Your task to perform on an android device: add a contact in the contacts app Image 0: 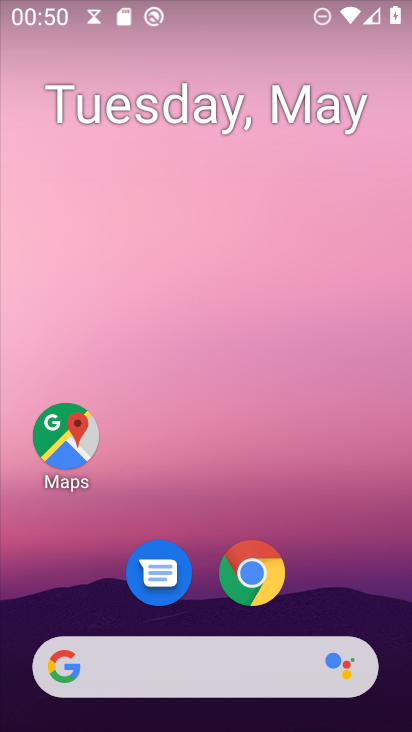
Step 0: drag from (349, 593) to (279, 139)
Your task to perform on an android device: add a contact in the contacts app Image 1: 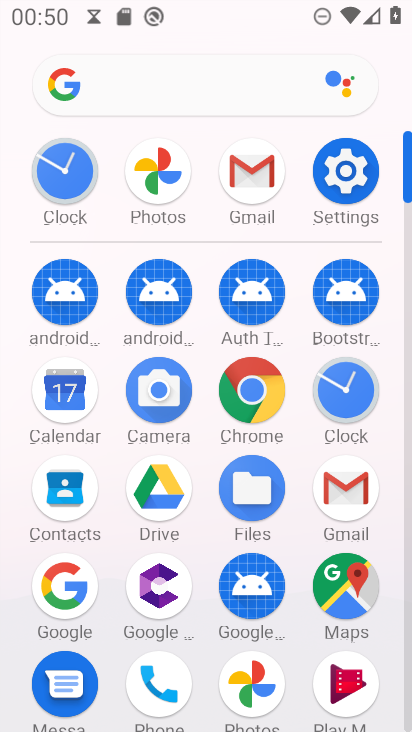
Step 1: click (56, 485)
Your task to perform on an android device: add a contact in the contacts app Image 2: 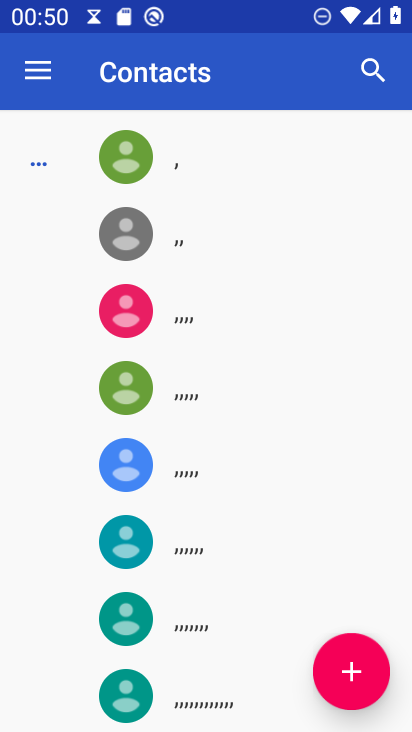
Step 2: click (351, 670)
Your task to perform on an android device: add a contact in the contacts app Image 3: 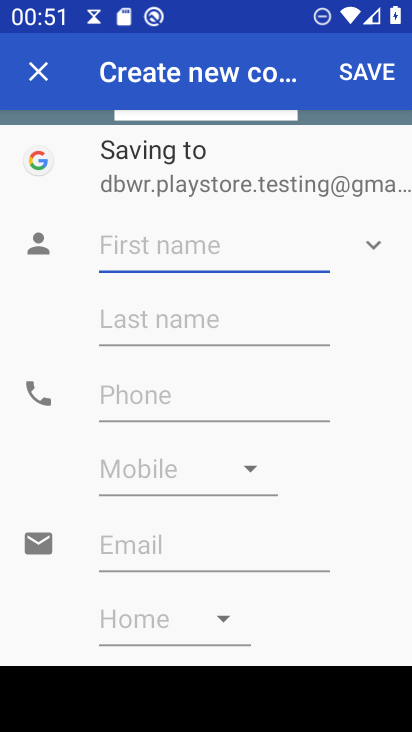
Step 3: type "fgsdfgs"
Your task to perform on an android device: add a contact in the contacts app Image 4: 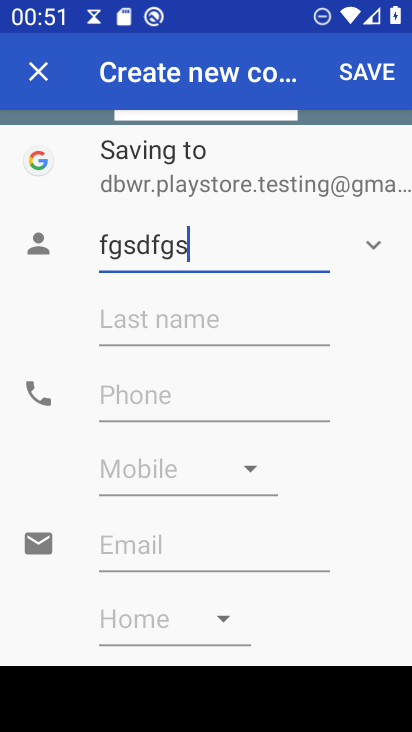
Step 4: type ""
Your task to perform on an android device: add a contact in the contacts app Image 5: 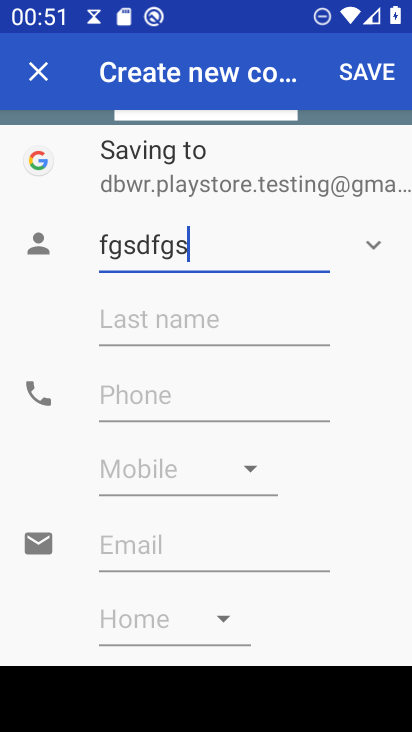
Step 5: click (250, 321)
Your task to perform on an android device: add a contact in the contacts app Image 6: 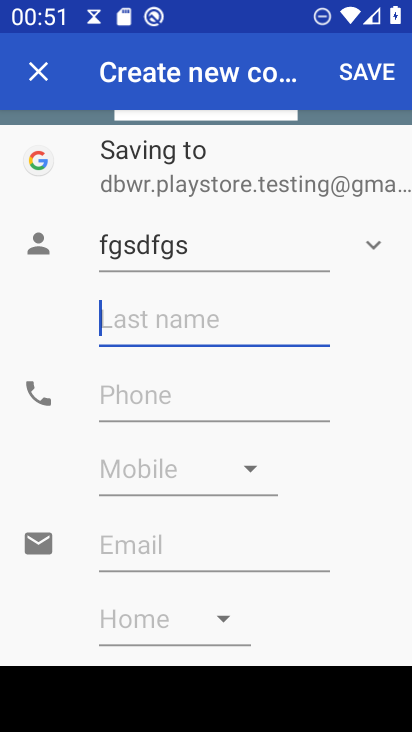
Step 6: type "fgdsg"
Your task to perform on an android device: add a contact in the contacts app Image 7: 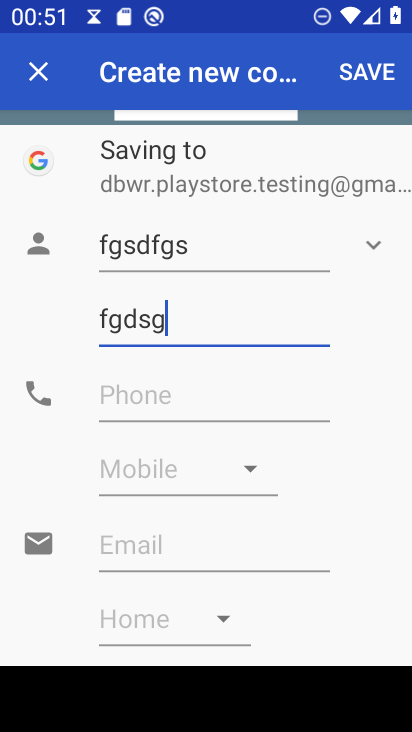
Step 7: type ""
Your task to perform on an android device: add a contact in the contacts app Image 8: 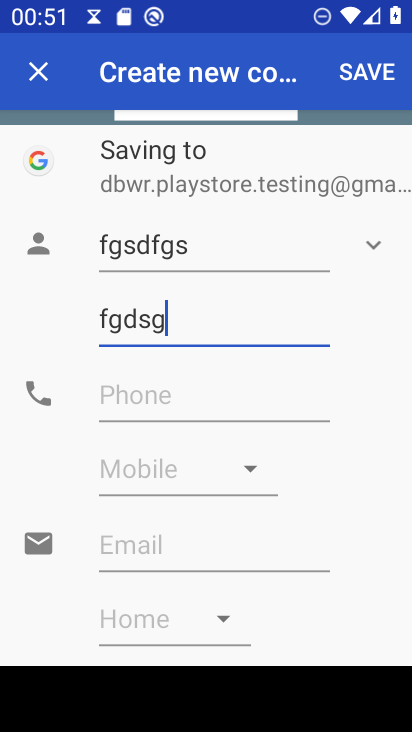
Step 8: click (236, 400)
Your task to perform on an android device: add a contact in the contacts app Image 9: 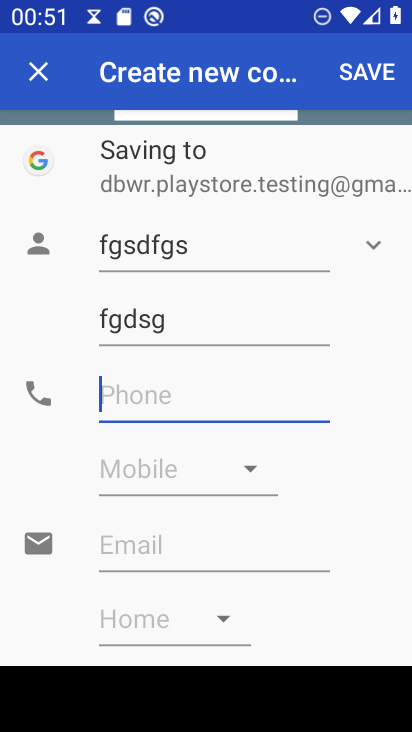
Step 9: type "53543452345"
Your task to perform on an android device: add a contact in the contacts app Image 10: 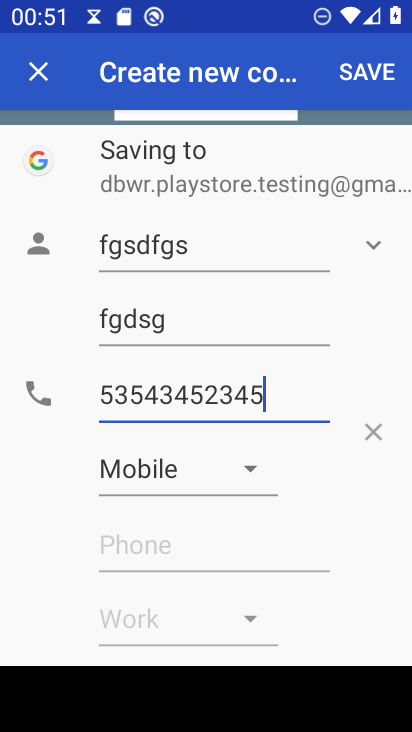
Step 10: type ""
Your task to perform on an android device: add a contact in the contacts app Image 11: 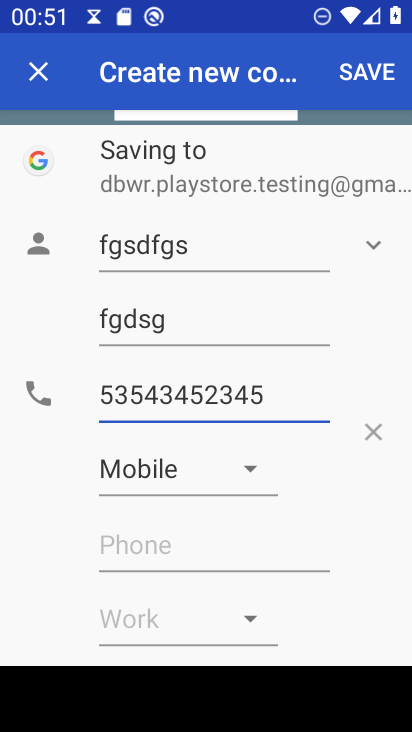
Step 11: click (380, 78)
Your task to perform on an android device: add a contact in the contacts app Image 12: 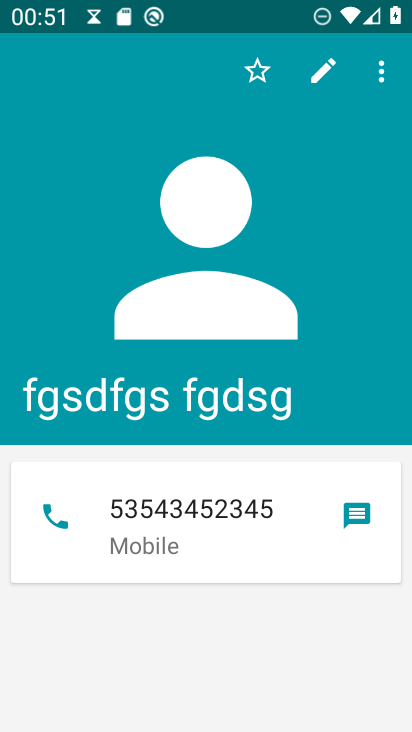
Step 12: task complete